Your task to perform on an android device: check out phone information Image 0: 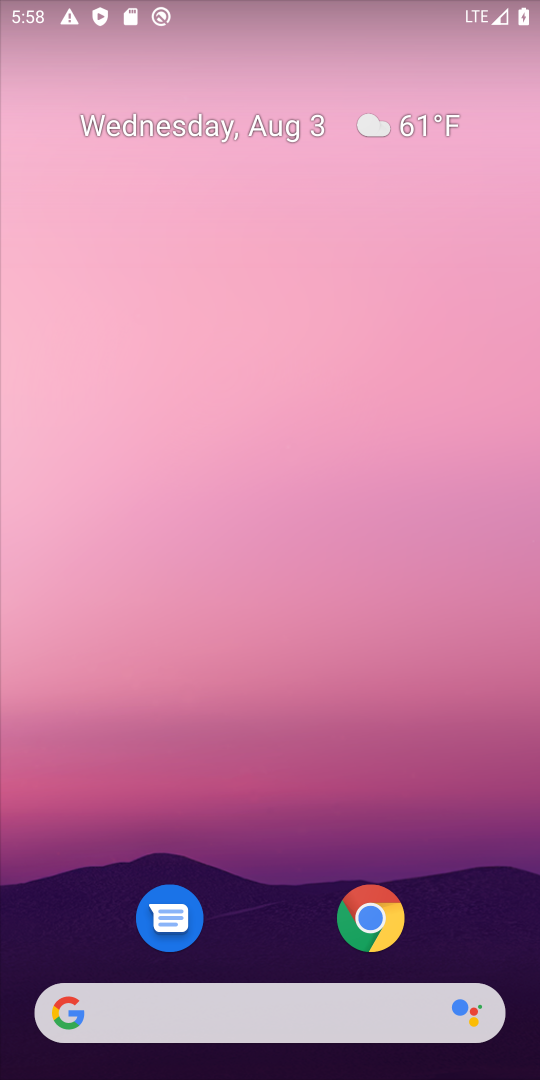
Step 0: drag from (264, 954) to (240, 264)
Your task to perform on an android device: check out phone information Image 1: 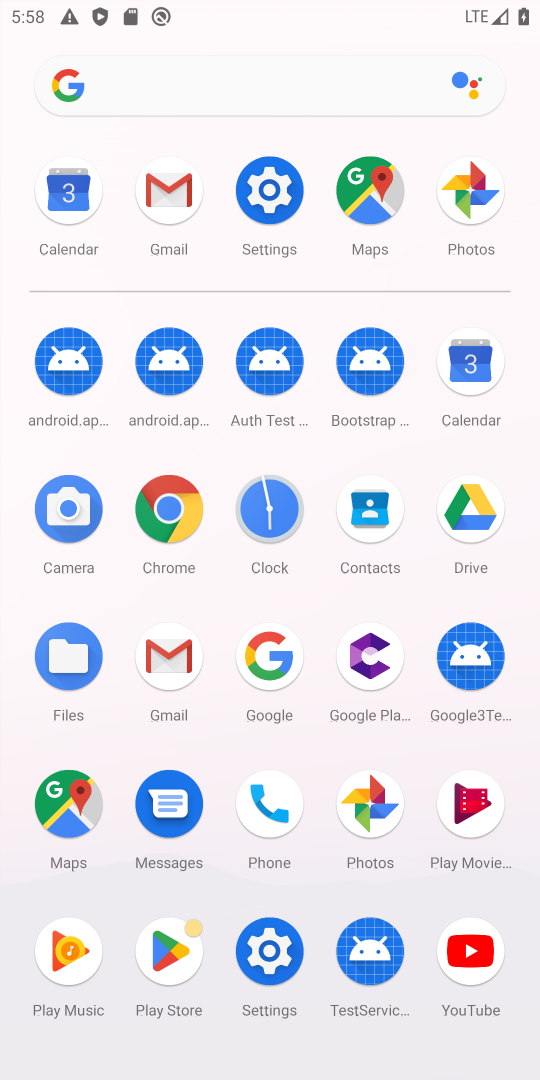
Step 1: click (287, 933)
Your task to perform on an android device: check out phone information Image 2: 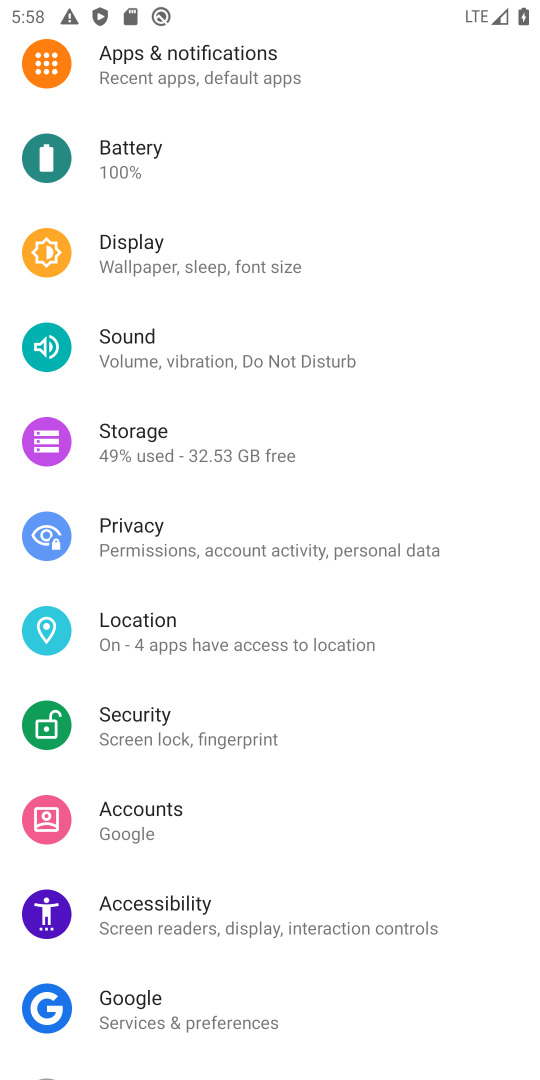
Step 2: drag from (131, 1008) to (100, 476)
Your task to perform on an android device: check out phone information Image 3: 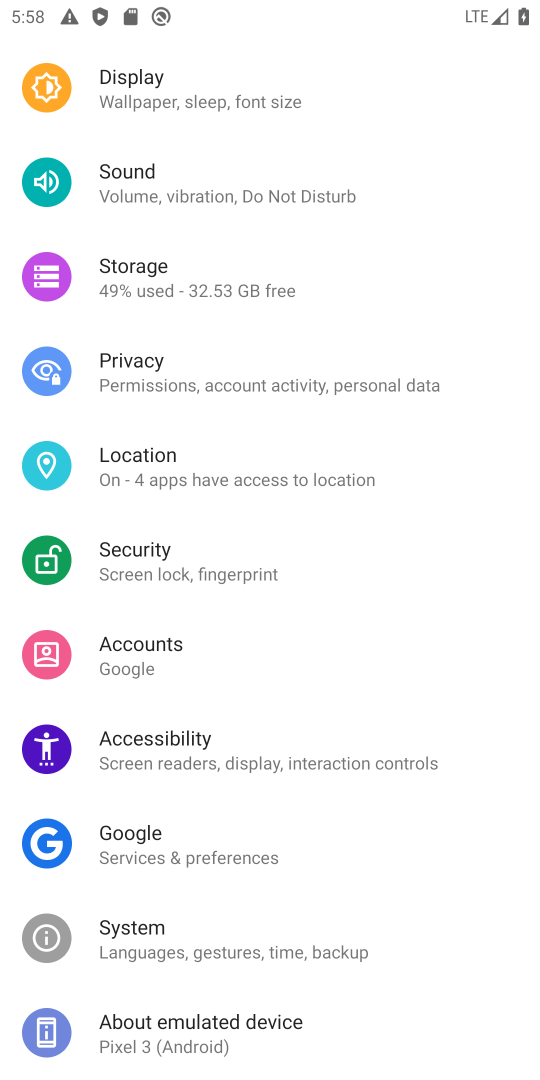
Step 3: click (124, 1016)
Your task to perform on an android device: check out phone information Image 4: 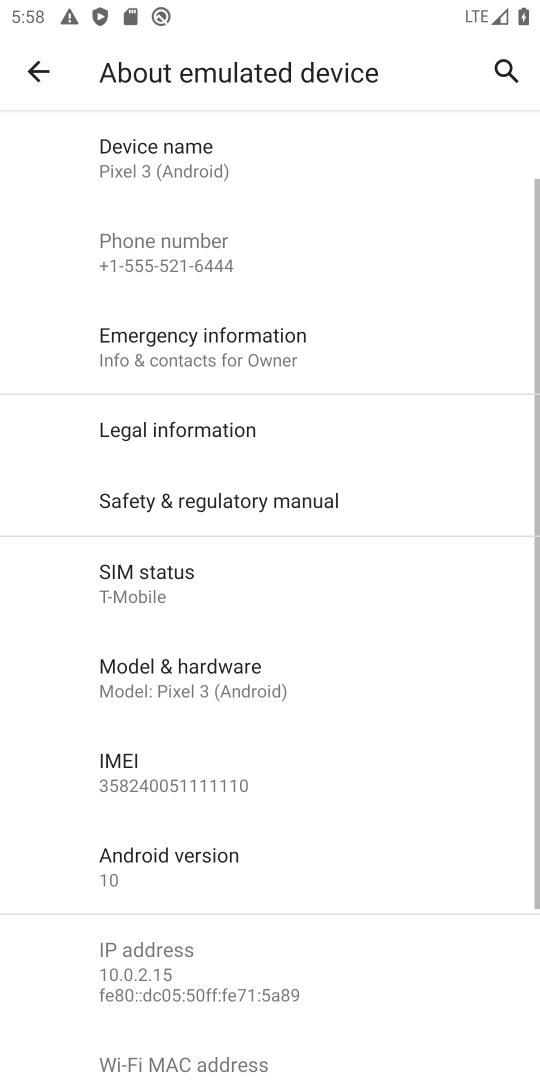
Step 4: task complete